Your task to perform on an android device: clear all cookies in the chrome app Image 0: 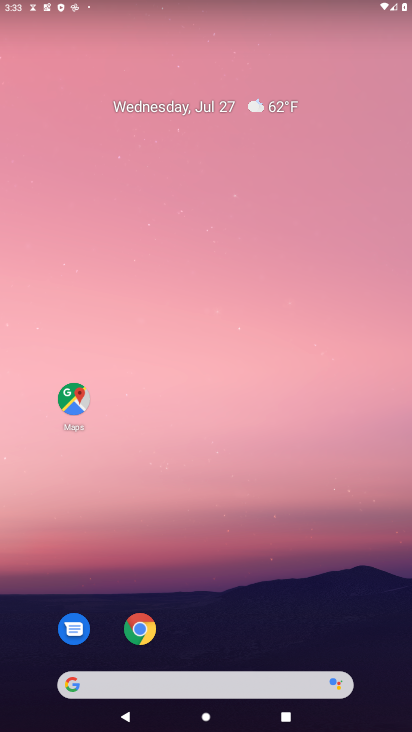
Step 0: click (141, 631)
Your task to perform on an android device: clear all cookies in the chrome app Image 1: 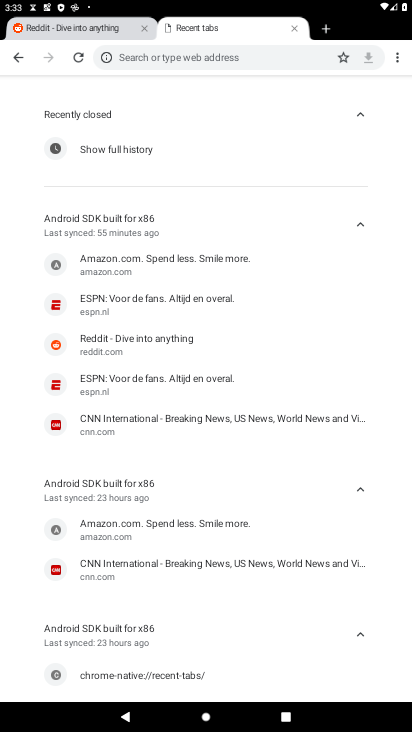
Step 1: click (401, 57)
Your task to perform on an android device: clear all cookies in the chrome app Image 2: 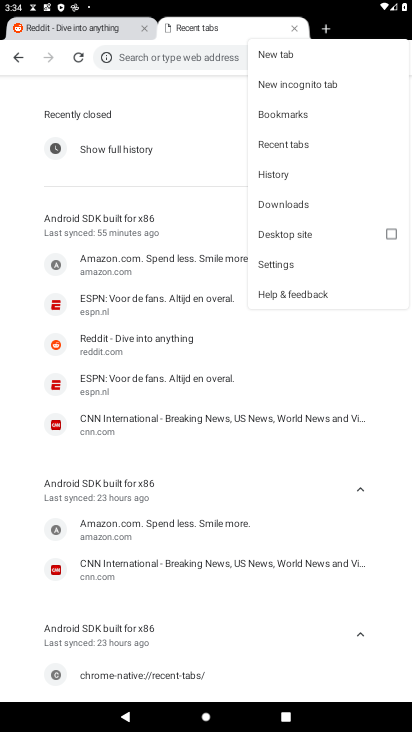
Step 2: click (287, 266)
Your task to perform on an android device: clear all cookies in the chrome app Image 3: 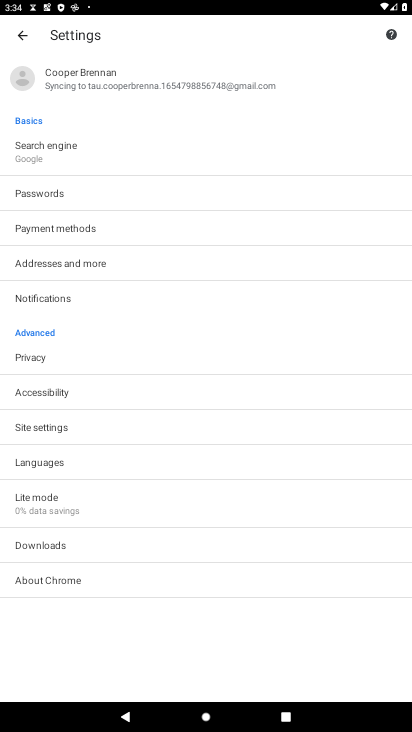
Step 3: click (33, 357)
Your task to perform on an android device: clear all cookies in the chrome app Image 4: 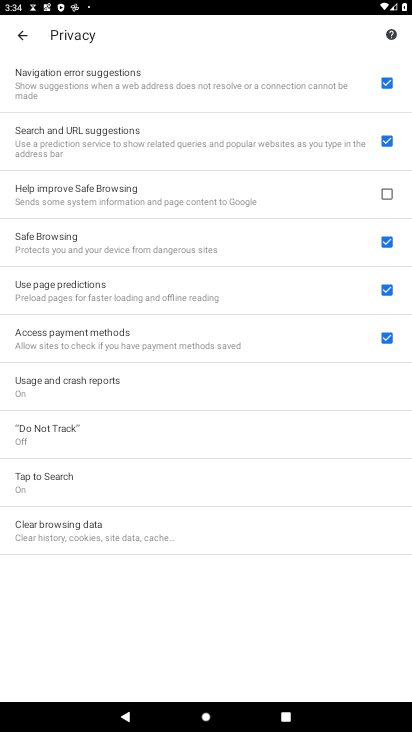
Step 4: click (92, 532)
Your task to perform on an android device: clear all cookies in the chrome app Image 5: 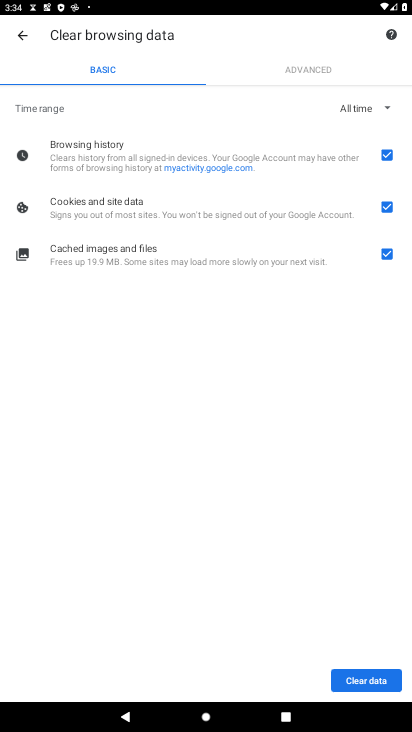
Step 5: click (391, 155)
Your task to perform on an android device: clear all cookies in the chrome app Image 6: 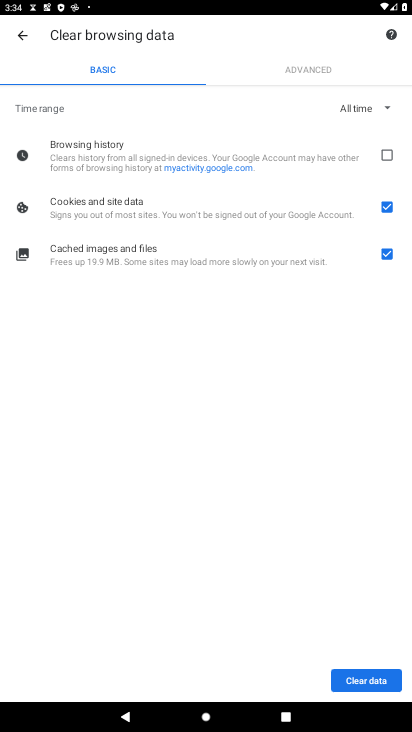
Step 6: click (388, 255)
Your task to perform on an android device: clear all cookies in the chrome app Image 7: 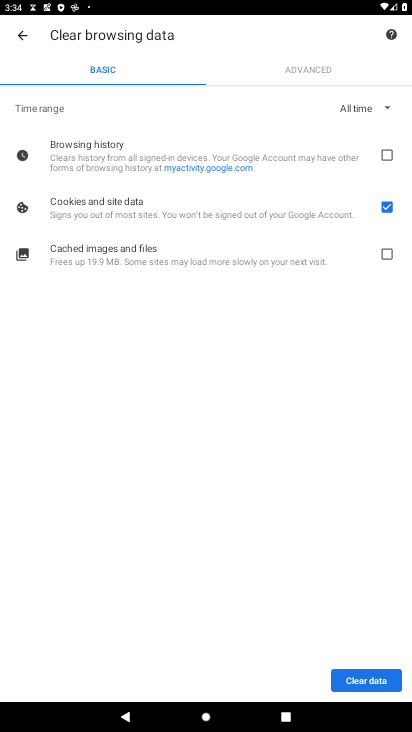
Step 7: click (369, 682)
Your task to perform on an android device: clear all cookies in the chrome app Image 8: 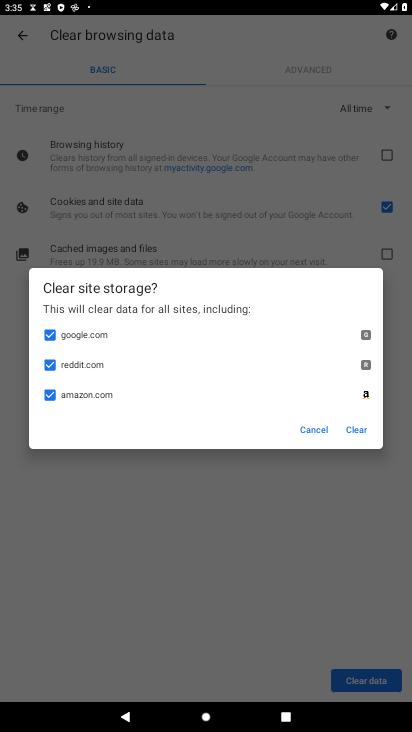
Step 8: click (359, 430)
Your task to perform on an android device: clear all cookies in the chrome app Image 9: 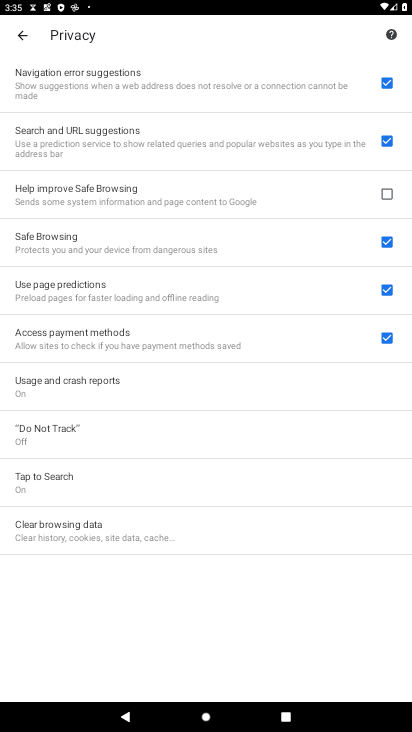
Step 9: task complete